Your task to perform on an android device: Do I have any events today? Image 0: 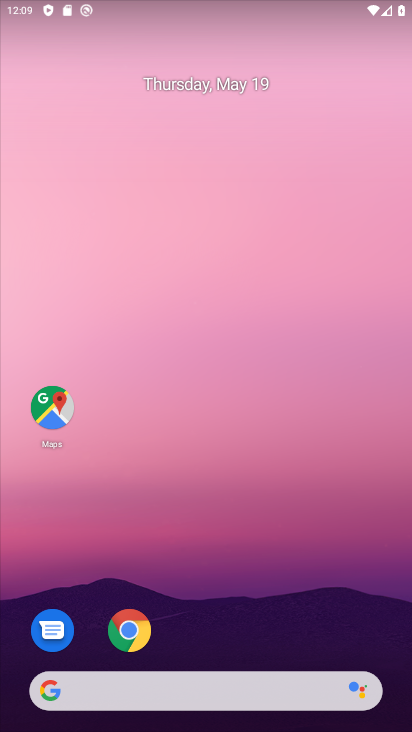
Step 0: drag from (218, 625) to (370, 51)
Your task to perform on an android device: Do I have any events today? Image 1: 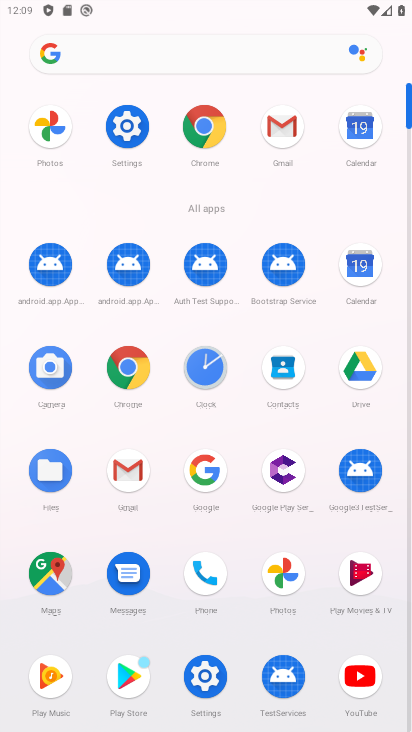
Step 1: click (354, 270)
Your task to perform on an android device: Do I have any events today? Image 2: 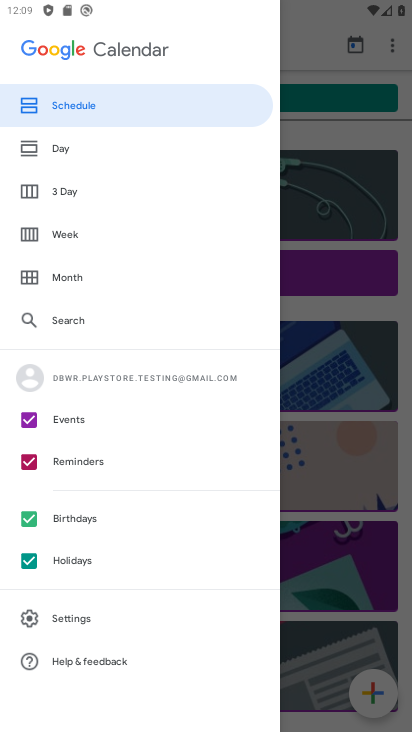
Step 2: click (85, 622)
Your task to perform on an android device: Do I have any events today? Image 3: 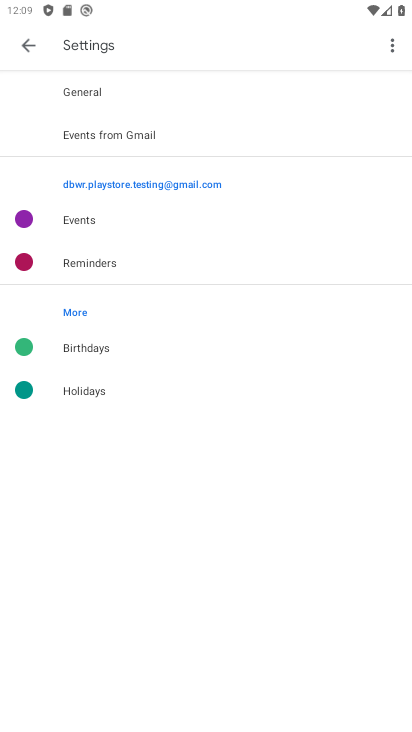
Step 3: press home button
Your task to perform on an android device: Do I have any events today? Image 4: 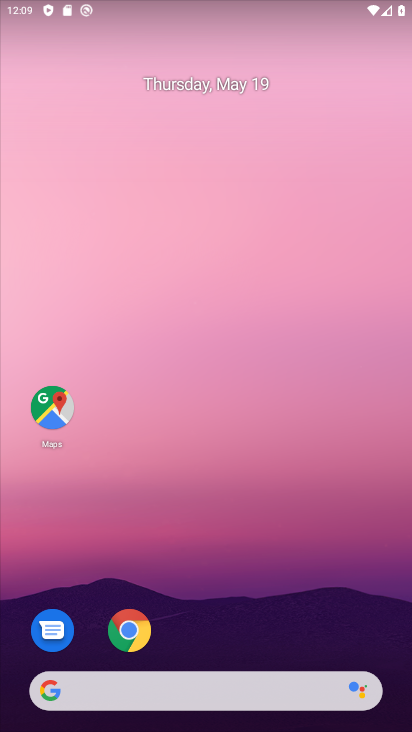
Step 4: click (182, 699)
Your task to perform on an android device: Do I have any events today? Image 5: 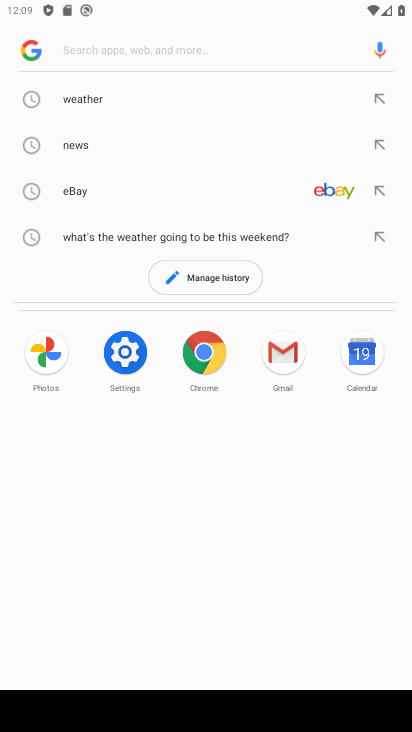
Step 5: type "event today"
Your task to perform on an android device: Do I have any events today? Image 6: 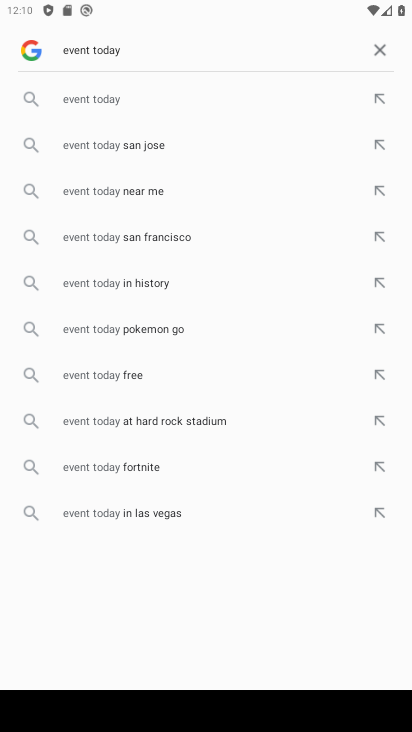
Step 6: click (128, 91)
Your task to perform on an android device: Do I have any events today? Image 7: 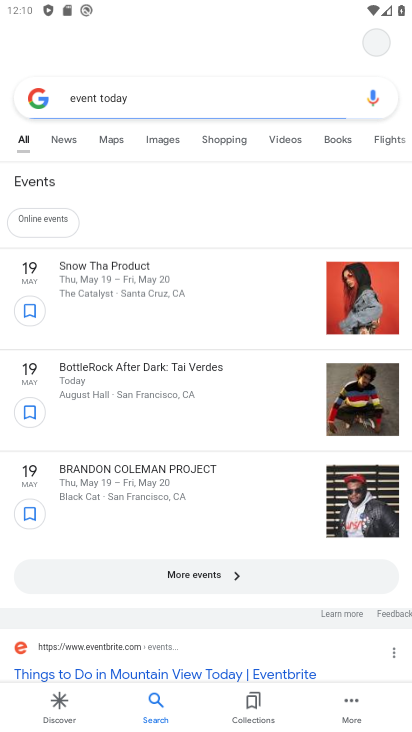
Step 7: task complete